Your task to perform on an android device: turn notification dots off Image 0: 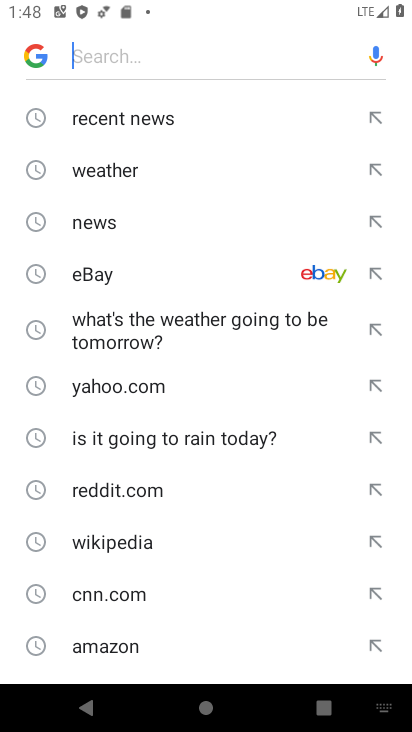
Step 0: press home button
Your task to perform on an android device: turn notification dots off Image 1: 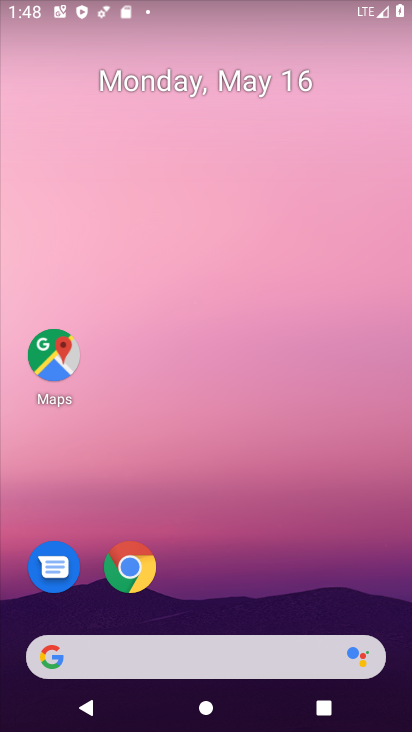
Step 1: drag from (286, 606) to (249, 194)
Your task to perform on an android device: turn notification dots off Image 2: 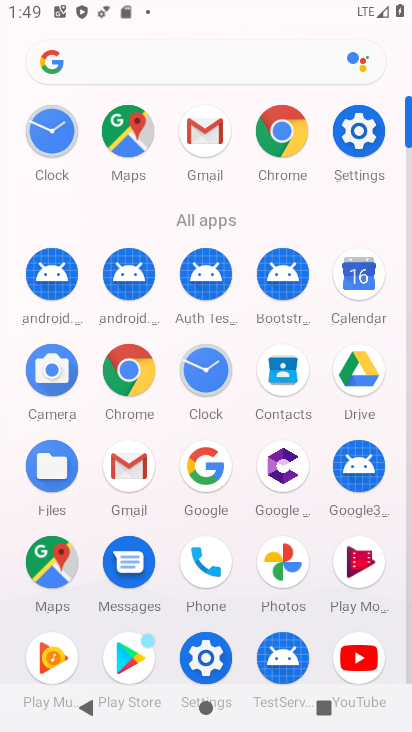
Step 2: click (365, 140)
Your task to perform on an android device: turn notification dots off Image 3: 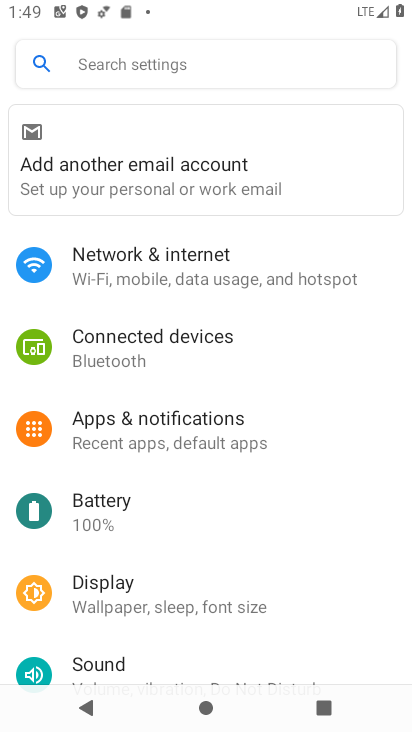
Step 3: click (180, 443)
Your task to perform on an android device: turn notification dots off Image 4: 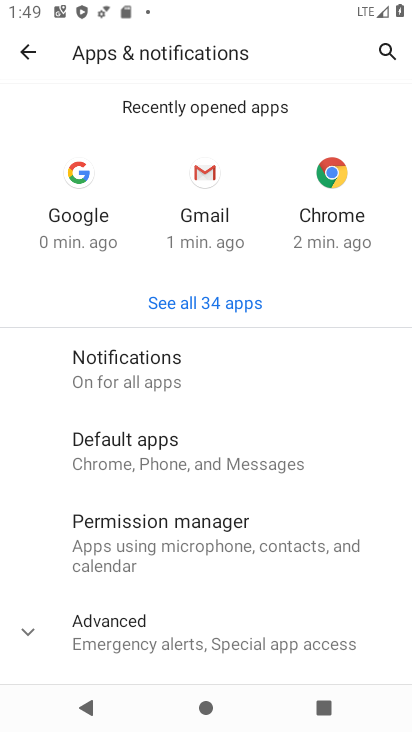
Step 4: click (197, 381)
Your task to perform on an android device: turn notification dots off Image 5: 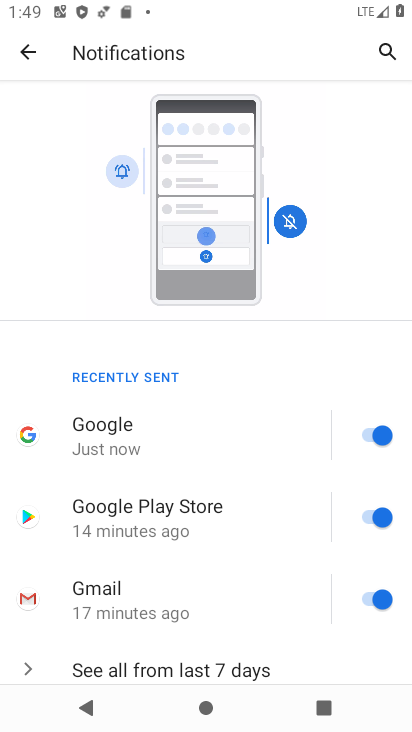
Step 5: drag from (282, 624) to (219, 131)
Your task to perform on an android device: turn notification dots off Image 6: 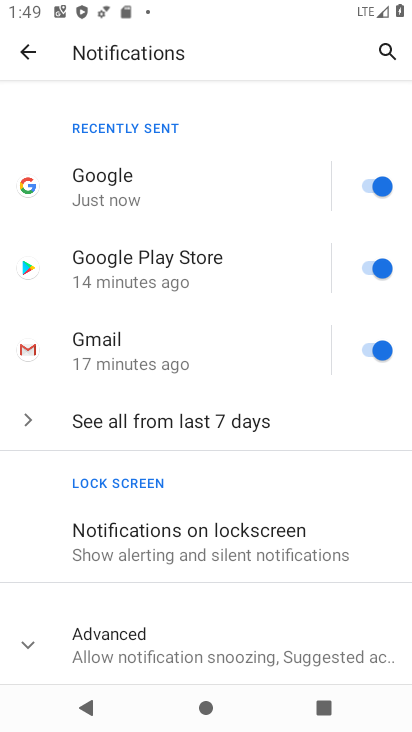
Step 6: click (329, 656)
Your task to perform on an android device: turn notification dots off Image 7: 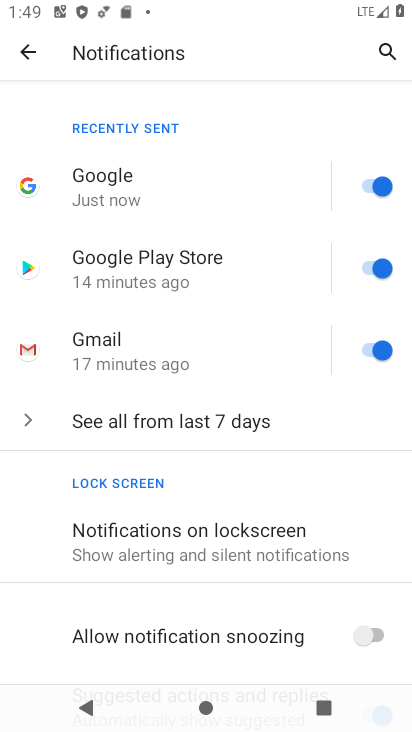
Step 7: drag from (283, 612) to (218, 69)
Your task to perform on an android device: turn notification dots off Image 8: 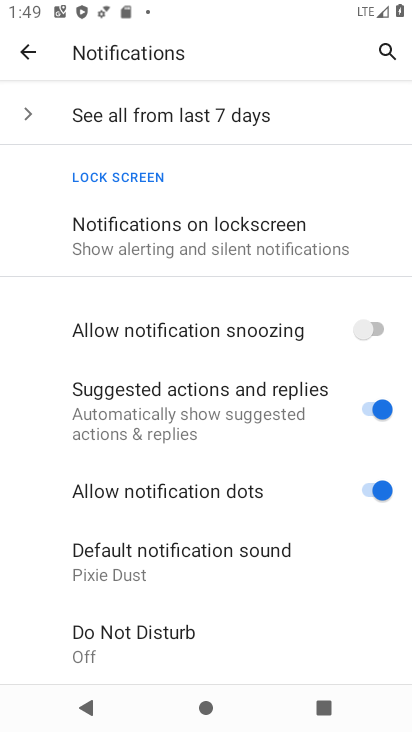
Step 8: click (369, 491)
Your task to perform on an android device: turn notification dots off Image 9: 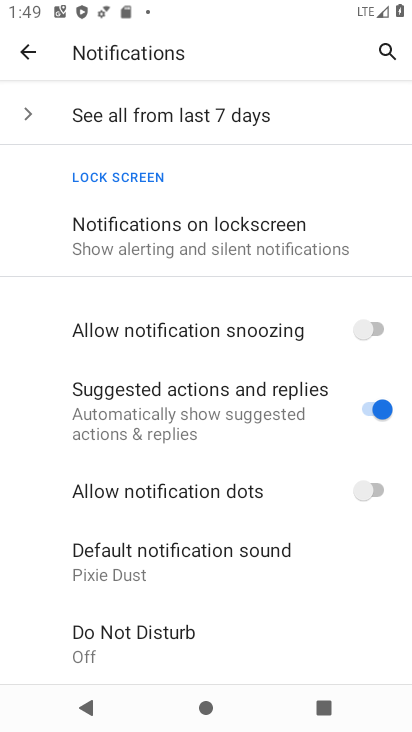
Step 9: task complete